Your task to perform on an android device: Open maps Image 0: 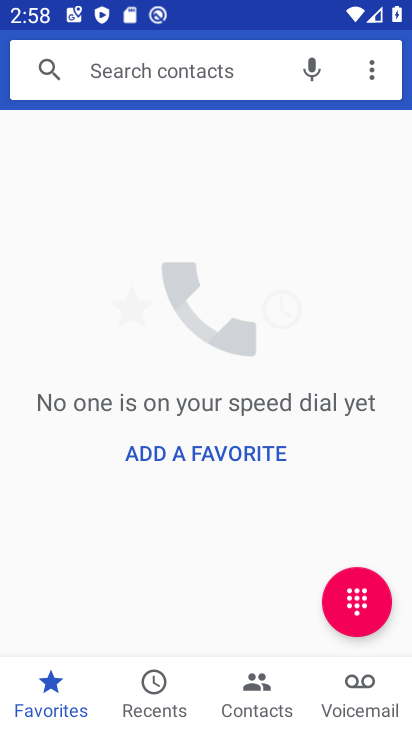
Step 0: press home button
Your task to perform on an android device: Open maps Image 1: 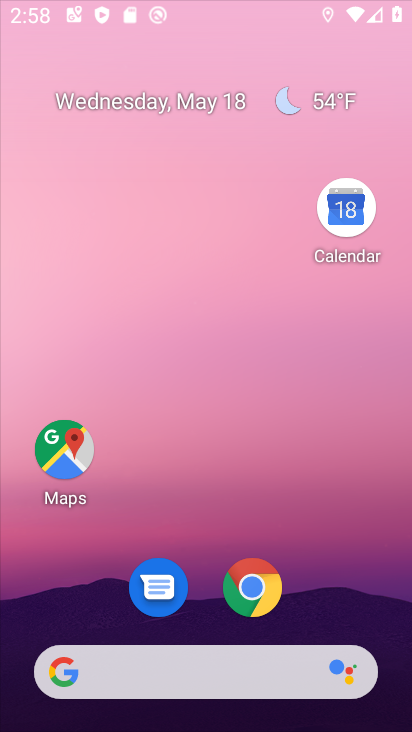
Step 1: drag from (187, 632) to (246, 76)
Your task to perform on an android device: Open maps Image 2: 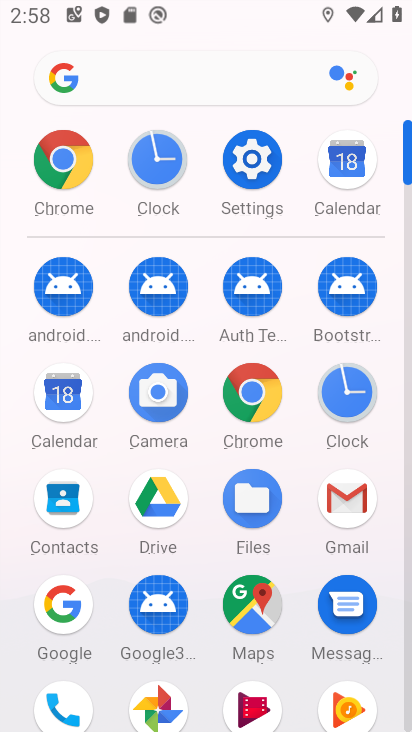
Step 2: click (256, 592)
Your task to perform on an android device: Open maps Image 3: 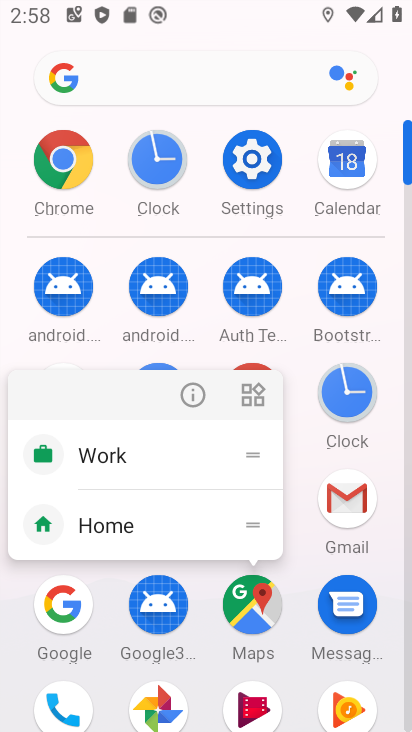
Step 3: click (181, 392)
Your task to perform on an android device: Open maps Image 4: 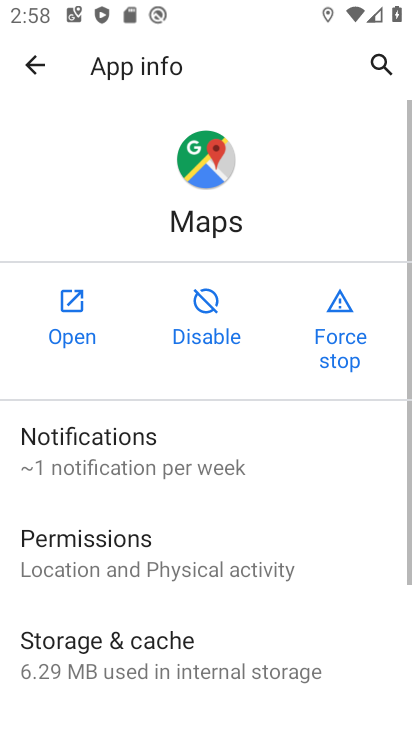
Step 4: click (83, 313)
Your task to perform on an android device: Open maps Image 5: 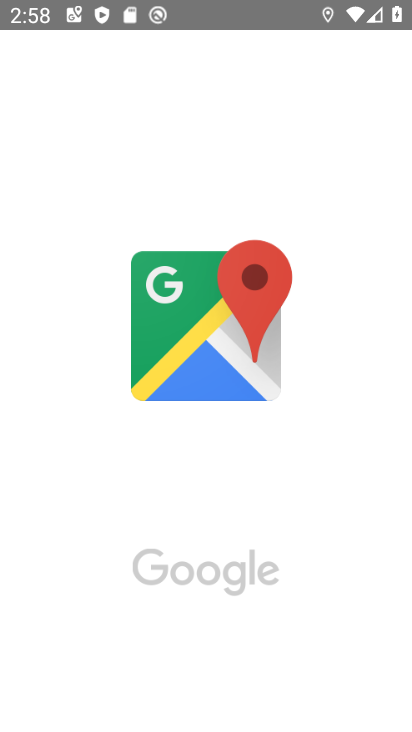
Step 5: task complete